Your task to perform on an android device: Open privacy settings Image 0: 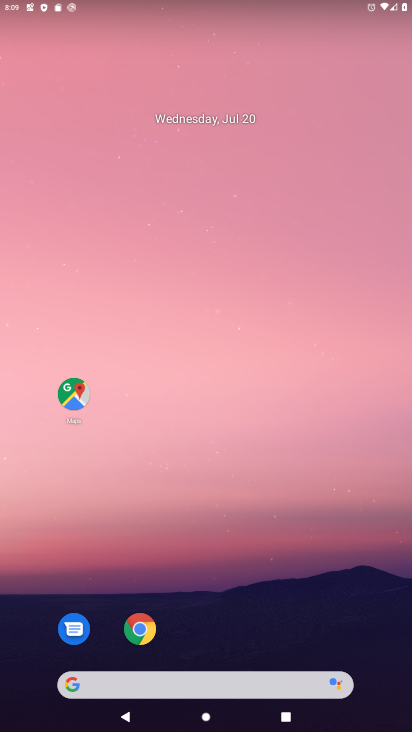
Step 0: drag from (199, 595) to (199, 231)
Your task to perform on an android device: Open privacy settings Image 1: 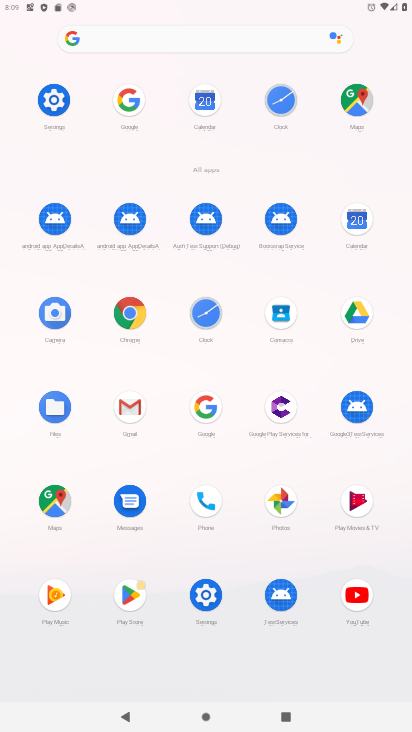
Step 1: click (50, 96)
Your task to perform on an android device: Open privacy settings Image 2: 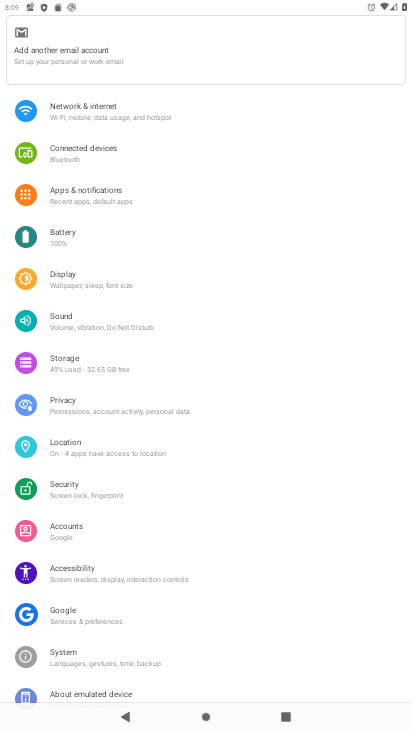
Step 2: click (73, 417)
Your task to perform on an android device: Open privacy settings Image 3: 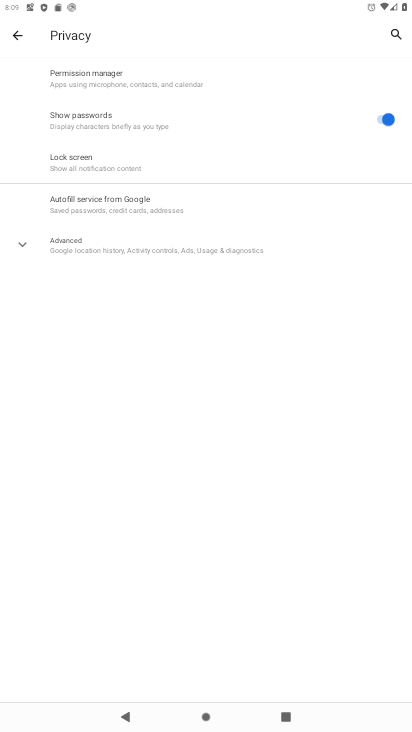
Step 3: task complete